Your task to perform on an android device: Go to privacy settings Image 0: 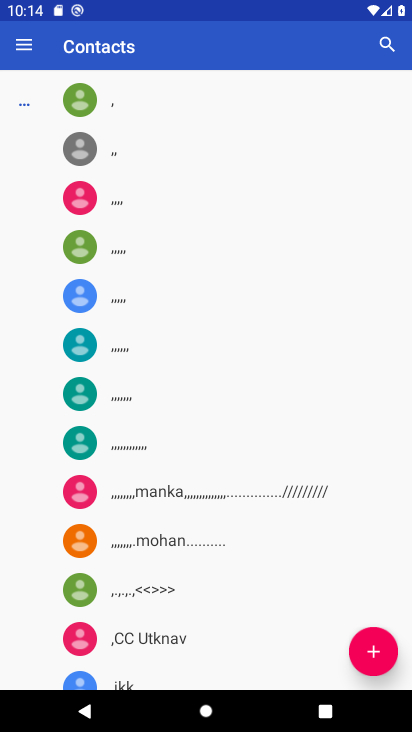
Step 0: press home button
Your task to perform on an android device: Go to privacy settings Image 1: 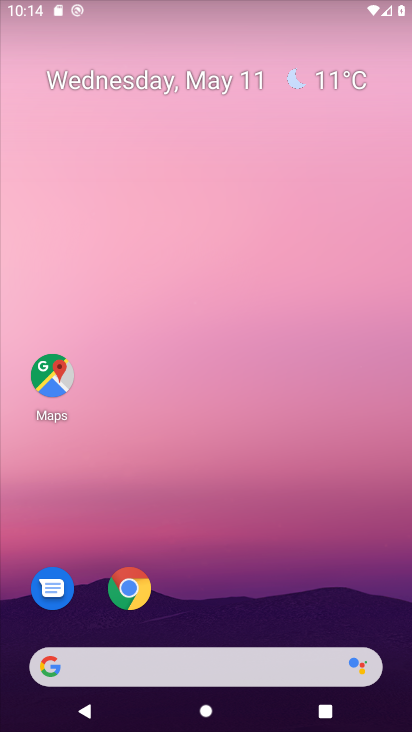
Step 1: drag from (266, 493) to (247, 95)
Your task to perform on an android device: Go to privacy settings Image 2: 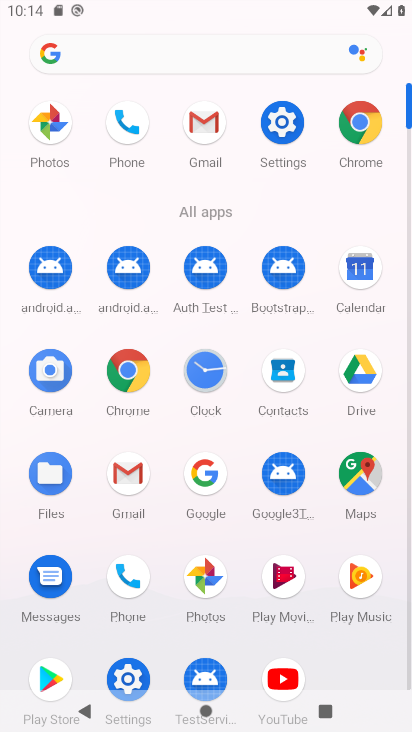
Step 2: click (281, 134)
Your task to perform on an android device: Go to privacy settings Image 3: 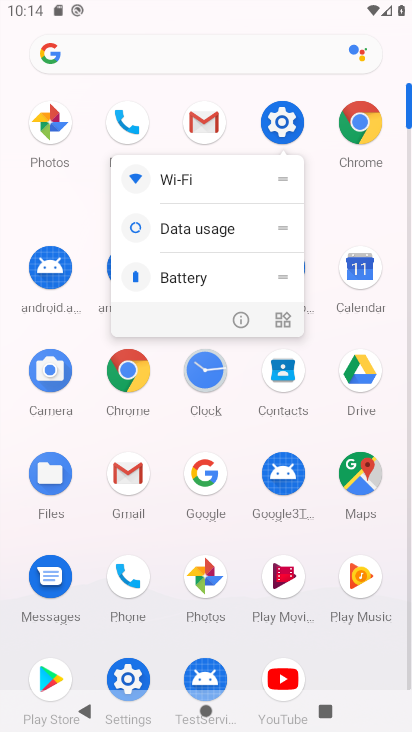
Step 3: click (286, 123)
Your task to perform on an android device: Go to privacy settings Image 4: 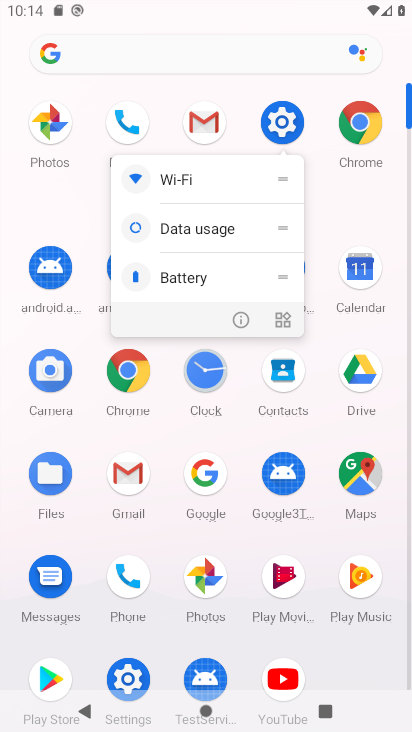
Step 4: click (288, 128)
Your task to perform on an android device: Go to privacy settings Image 5: 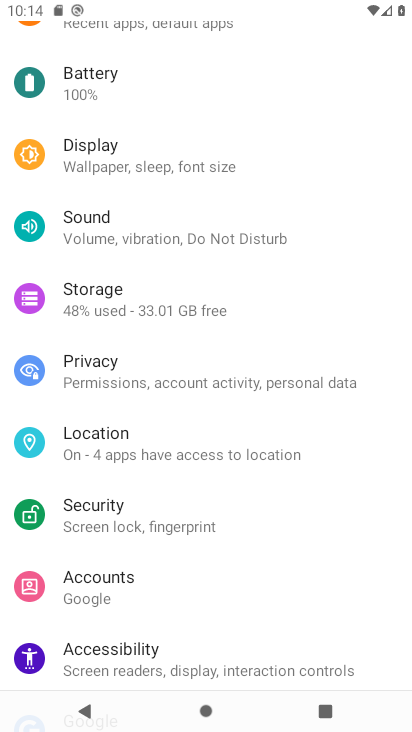
Step 5: click (157, 393)
Your task to perform on an android device: Go to privacy settings Image 6: 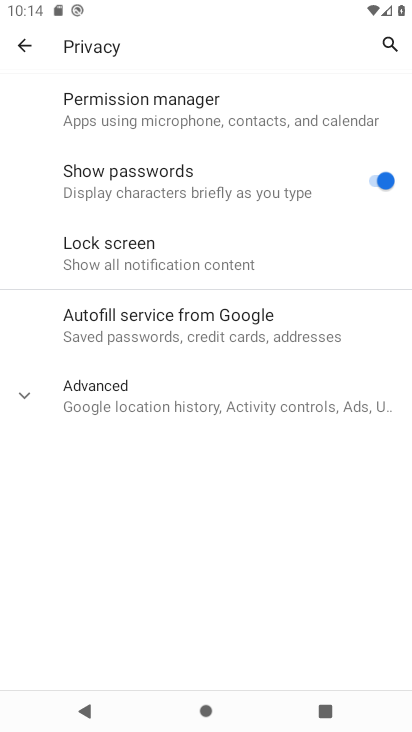
Step 6: task complete